Your task to perform on an android device: Open battery settings Image 0: 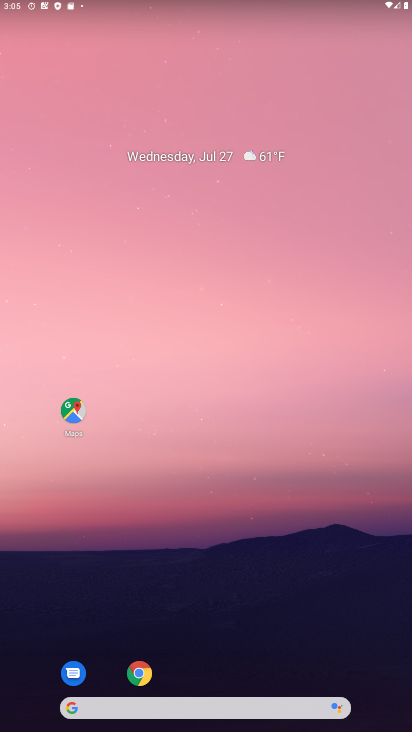
Step 0: drag from (155, 429) to (229, 156)
Your task to perform on an android device: Open battery settings Image 1: 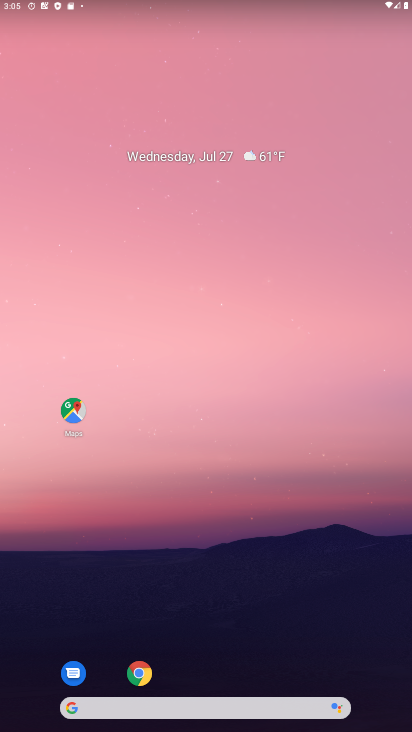
Step 1: drag from (39, 615) to (181, 100)
Your task to perform on an android device: Open battery settings Image 2: 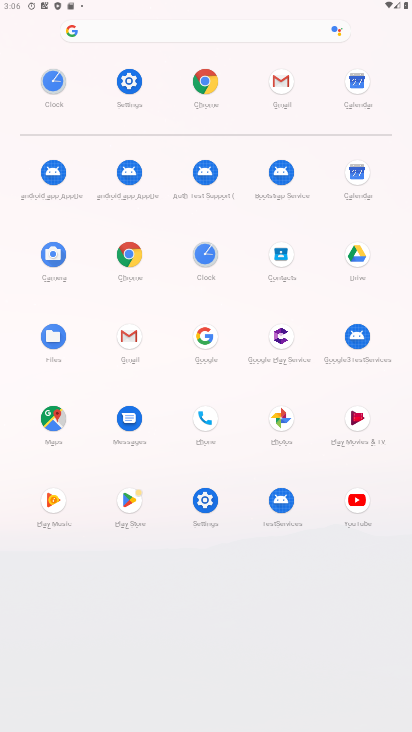
Step 2: click (205, 496)
Your task to perform on an android device: Open battery settings Image 3: 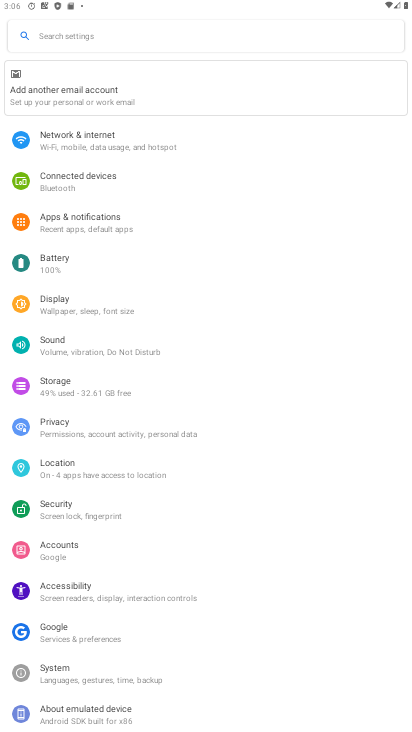
Step 3: click (68, 263)
Your task to perform on an android device: Open battery settings Image 4: 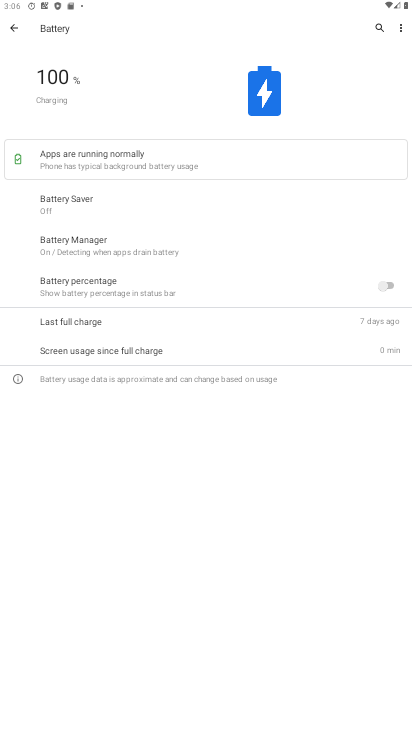
Step 4: task complete